Your task to perform on an android device: toggle javascript in the chrome app Image 0: 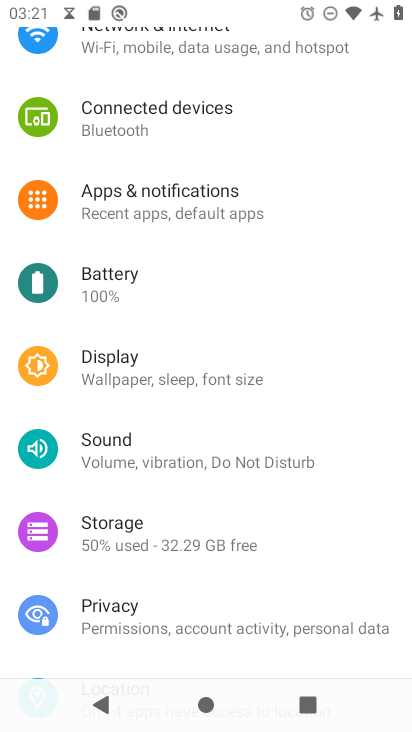
Step 0: press home button
Your task to perform on an android device: toggle javascript in the chrome app Image 1: 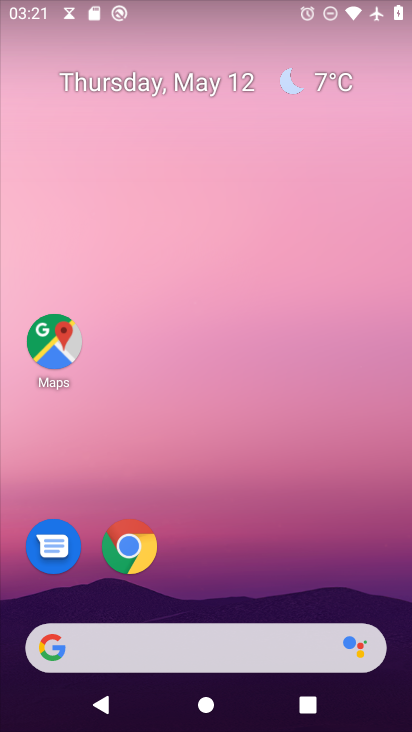
Step 1: drag from (125, 631) to (291, 116)
Your task to perform on an android device: toggle javascript in the chrome app Image 2: 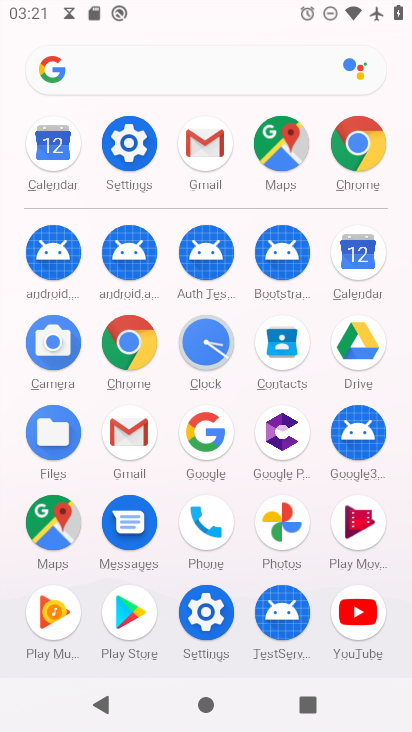
Step 2: click (363, 155)
Your task to perform on an android device: toggle javascript in the chrome app Image 3: 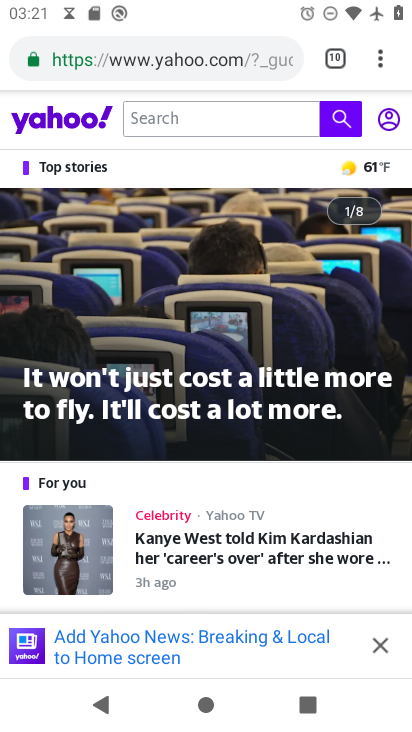
Step 3: drag from (379, 61) to (243, 572)
Your task to perform on an android device: toggle javascript in the chrome app Image 4: 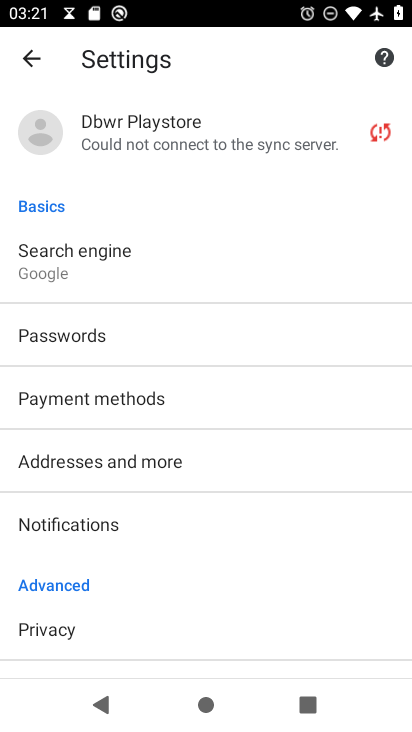
Step 4: drag from (131, 637) to (308, 300)
Your task to perform on an android device: toggle javascript in the chrome app Image 5: 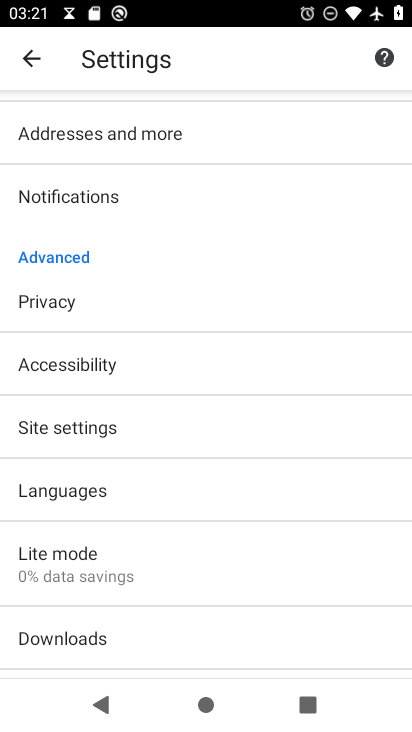
Step 5: click (104, 431)
Your task to perform on an android device: toggle javascript in the chrome app Image 6: 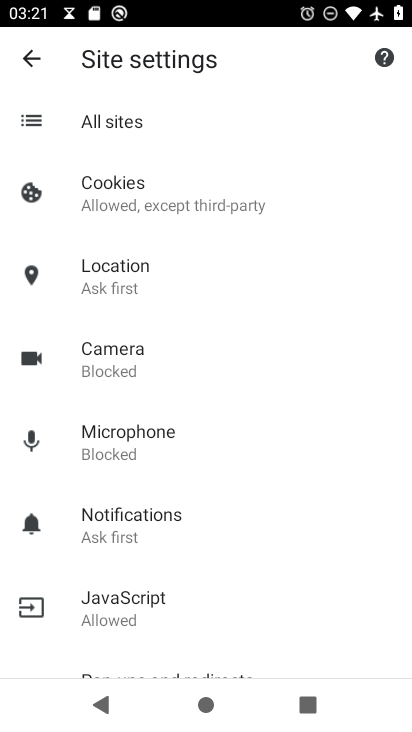
Step 6: click (158, 608)
Your task to perform on an android device: toggle javascript in the chrome app Image 7: 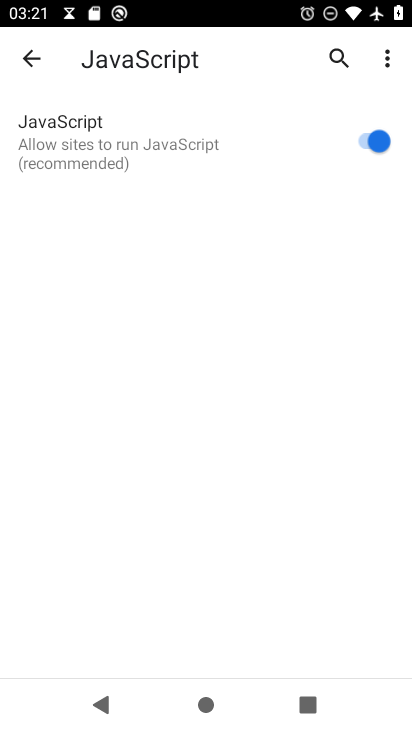
Step 7: click (367, 141)
Your task to perform on an android device: toggle javascript in the chrome app Image 8: 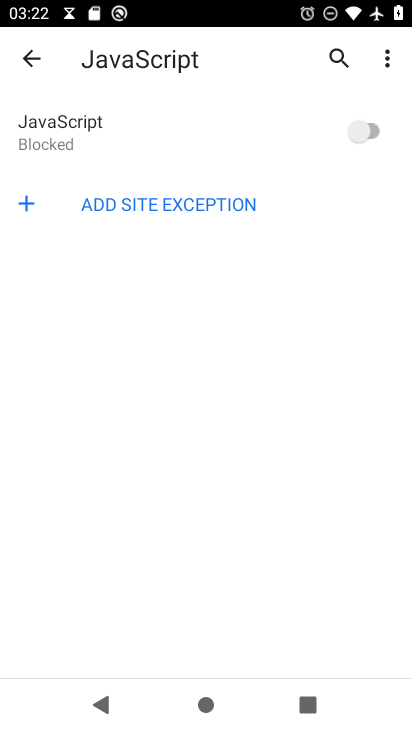
Step 8: task complete